Your task to perform on an android device: Open Android settings Image 0: 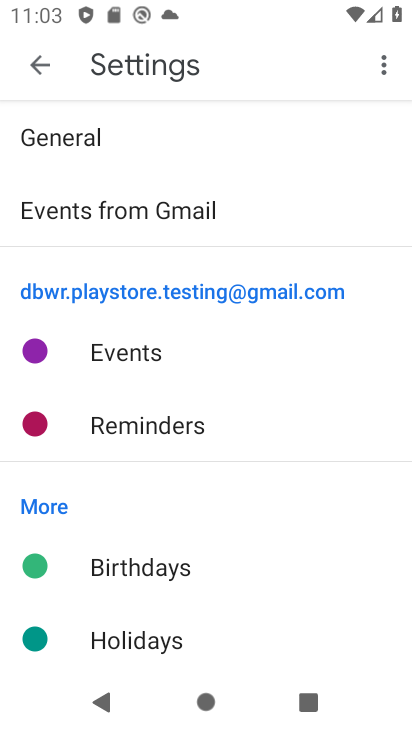
Step 0: press home button
Your task to perform on an android device: Open Android settings Image 1: 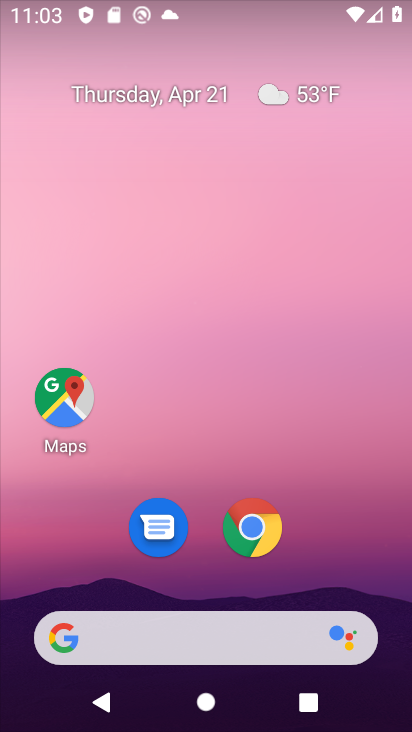
Step 1: drag from (342, 566) to (389, 158)
Your task to perform on an android device: Open Android settings Image 2: 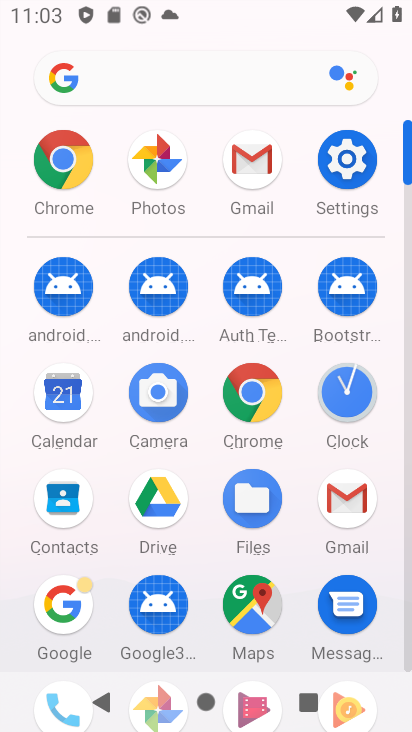
Step 2: click (345, 174)
Your task to perform on an android device: Open Android settings Image 3: 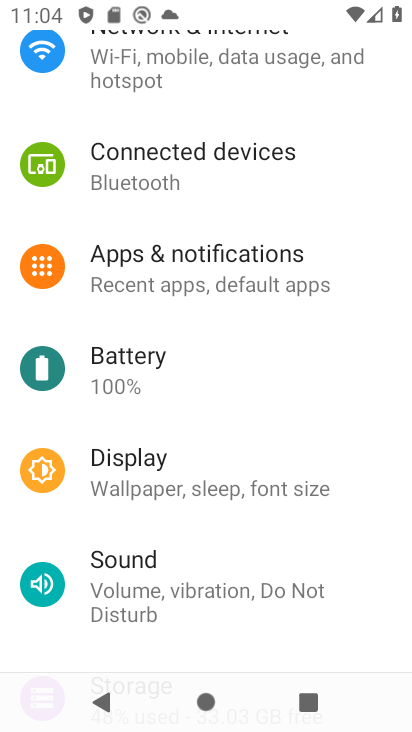
Step 3: drag from (368, 228) to (366, 372)
Your task to perform on an android device: Open Android settings Image 4: 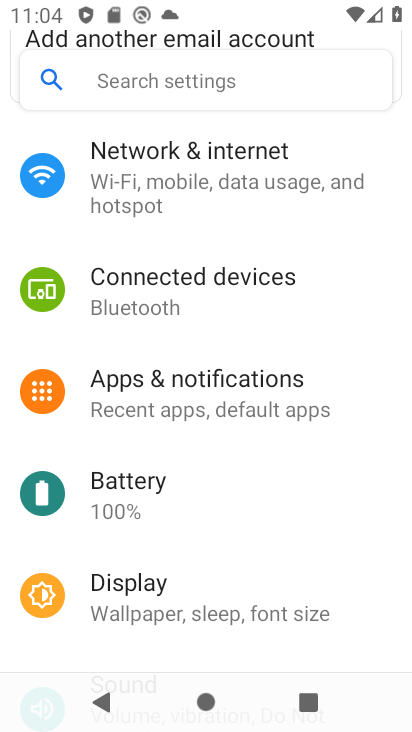
Step 4: drag from (369, 236) to (371, 419)
Your task to perform on an android device: Open Android settings Image 5: 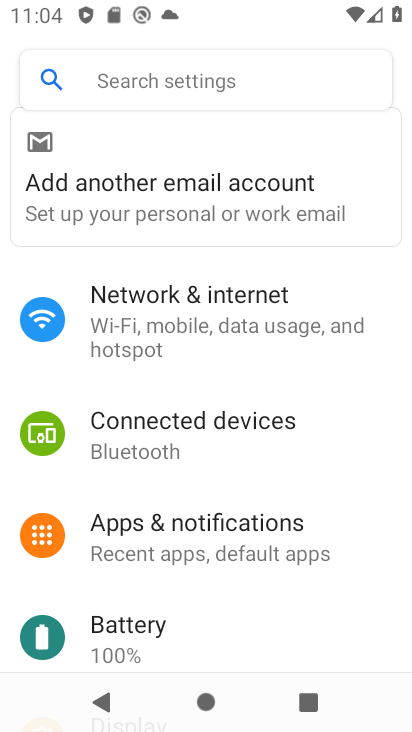
Step 5: drag from (363, 439) to (365, 291)
Your task to perform on an android device: Open Android settings Image 6: 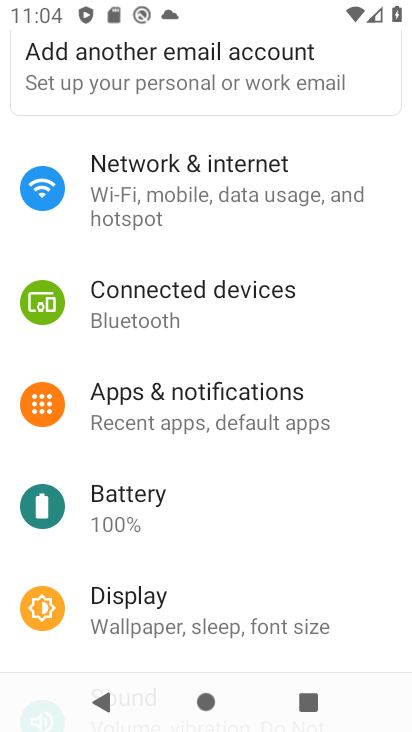
Step 6: drag from (360, 472) to (362, 323)
Your task to perform on an android device: Open Android settings Image 7: 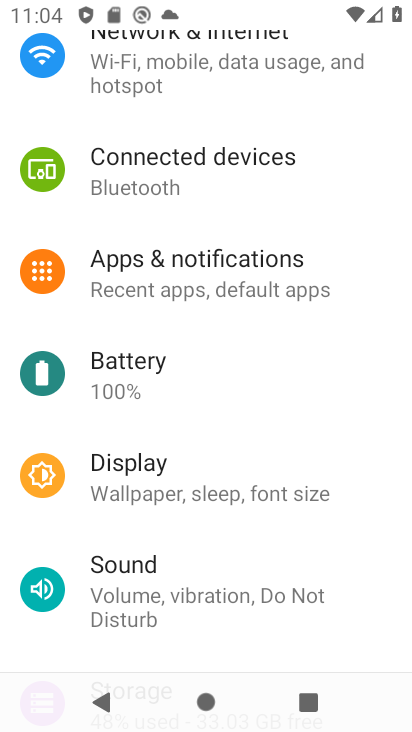
Step 7: drag from (363, 503) to (371, 383)
Your task to perform on an android device: Open Android settings Image 8: 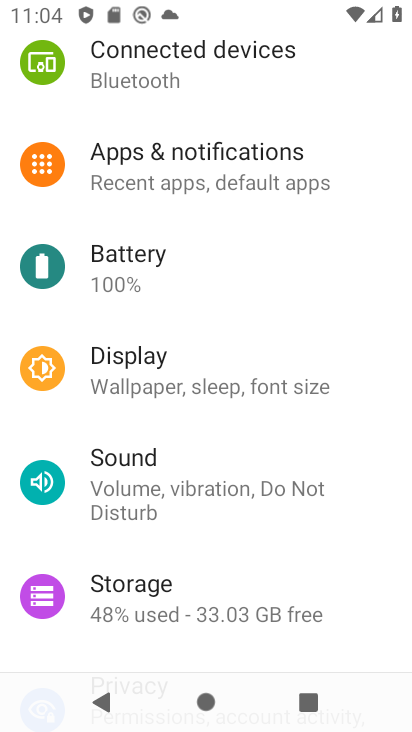
Step 8: drag from (358, 548) to (363, 420)
Your task to perform on an android device: Open Android settings Image 9: 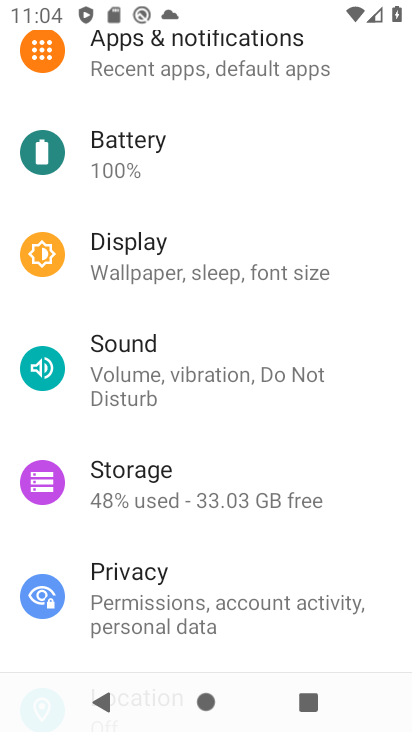
Step 9: drag from (357, 521) to (357, 398)
Your task to perform on an android device: Open Android settings Image 10: 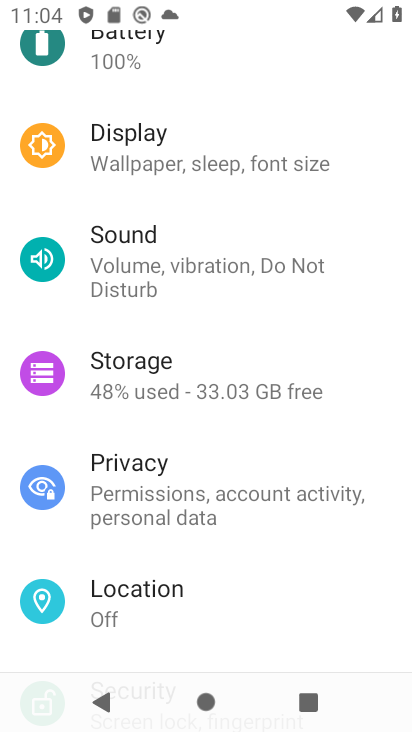
Step 10: drag from (355, 584) to (366, 433)
Your task to perform on an android device: Open Android settings Image 11: 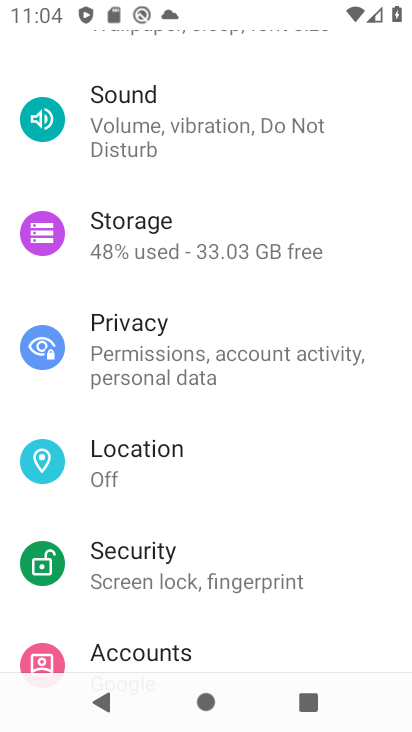
Step 11: drag from (346, 586) to (337, 475)
Your task to perform on an android device: Open Android settings Image 12: 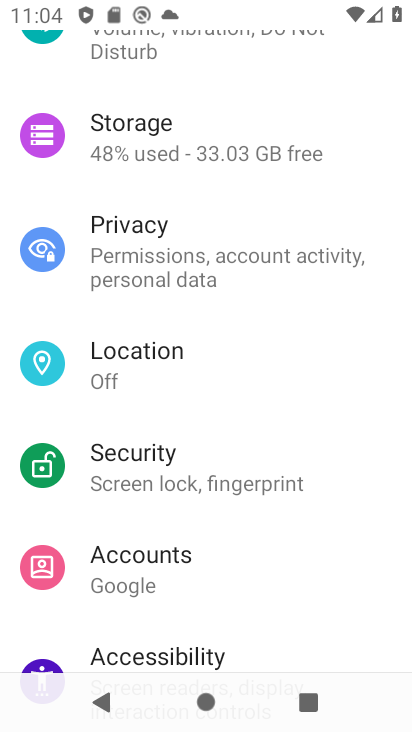
Step 12: drag from (308, 590) to (318, 442)
Your task to perform on an android device: Open Android settings Image 13: 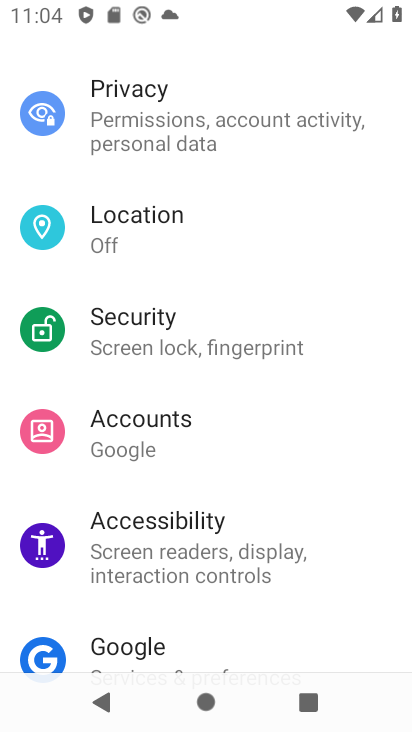
Step 13: drag from (331, 586) to (321, 444)
Your task to perform on an android device: Open Android settings Image 14: 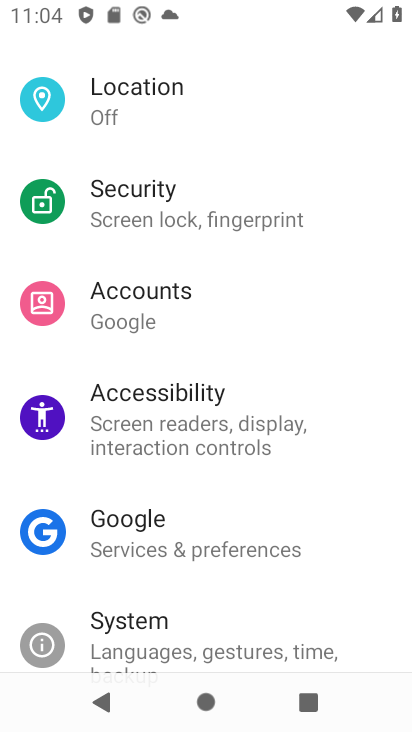
Step 14: drag from (328, 575) to (344, 441)
Your task to perform on an android device: Open Android settings Image 15: 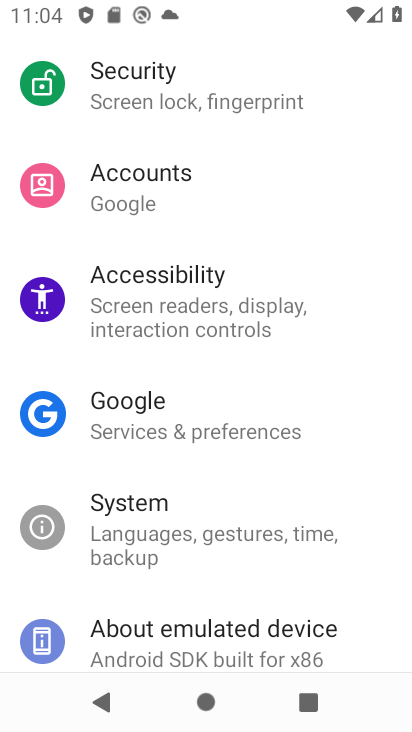
Step 15: click (315, 531)
Your task to perform on an android device: Open Android settings Image 16: 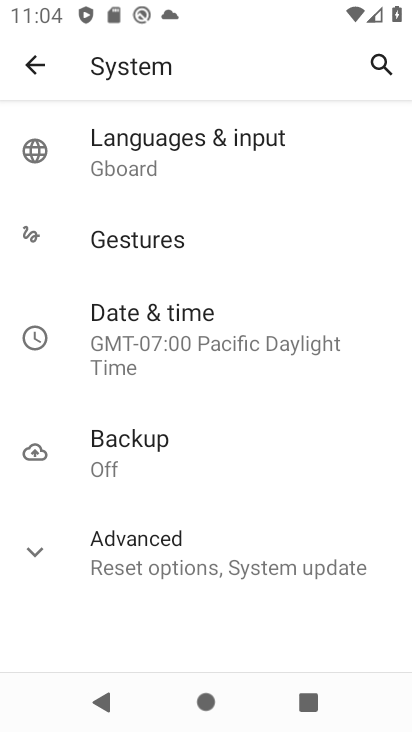
Step 16: click (281, 573)
Your task to perform on an android device: Open Android settings Image 17: 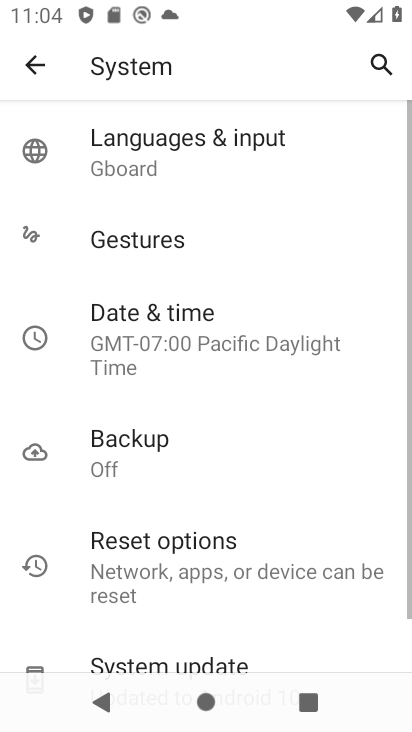
Step 17: task complete